Your task to perform on an android device: add a contact Image 0: 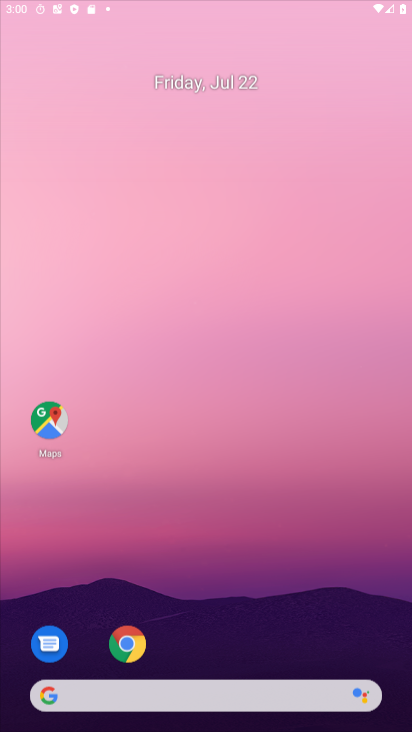
Step 0: press home button
Your task to perform on an android device: add a contact Image 1: 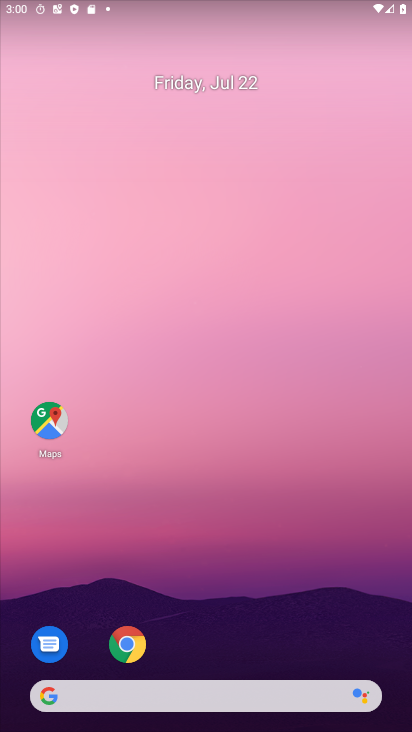
Step 1: drag from (275, 671) to (307, 64)
Your task to perform on an android device: add a contact Image 2: 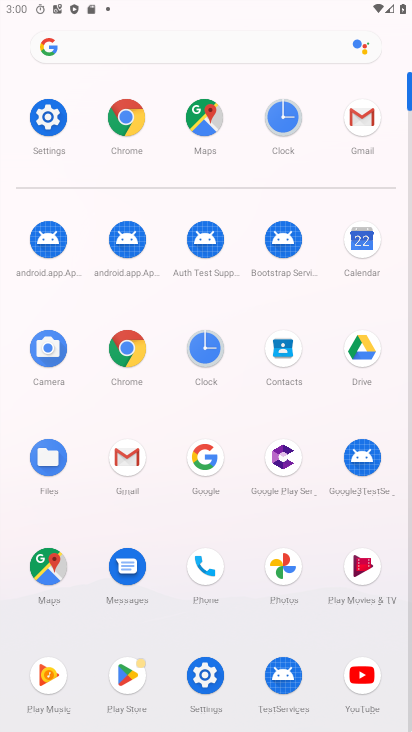
Step 2: click (288, 351)
Your task to perform on an android device: add a contact Image 3: 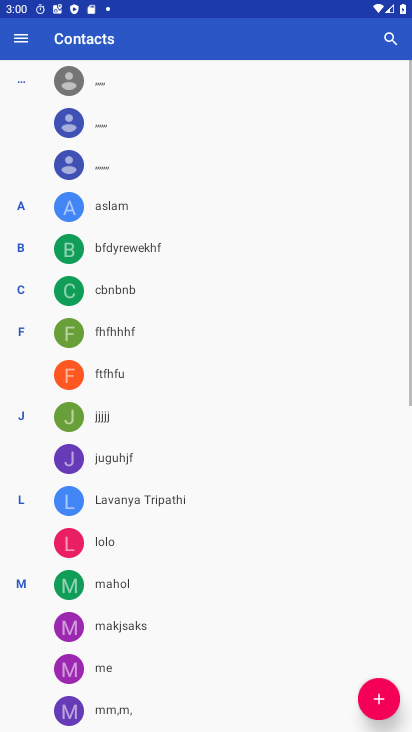
Step 3: click (373, 712)
Your task to perform on an android device: add a contact Image 4: 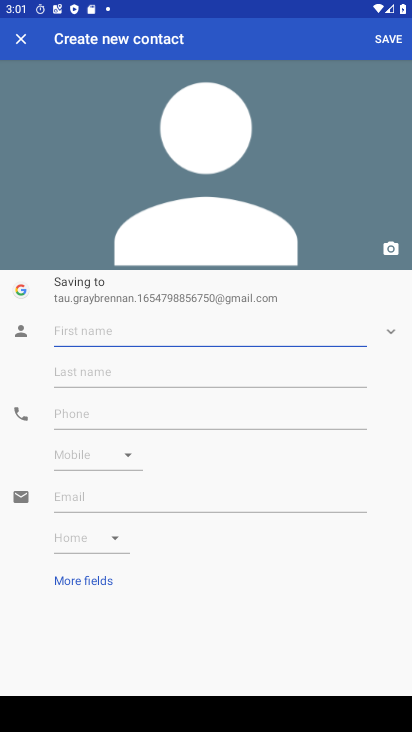
Step 4: type "nnmnmnm"
Your task to perform on an android device: add a contact Image 5: 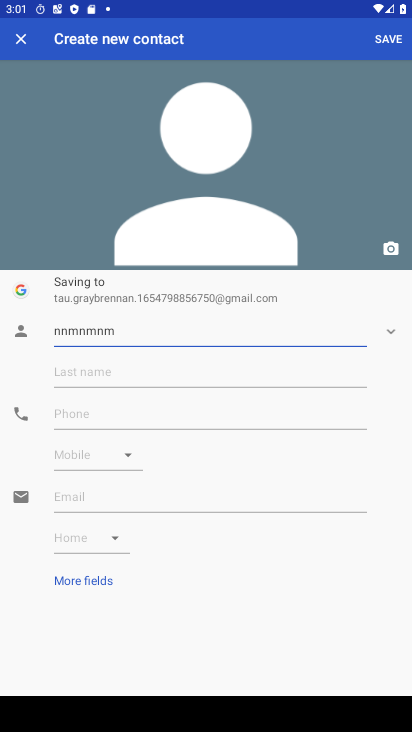
Step 5: click (293, 393)
Your task to perform on an android device: add a contact Image 6: 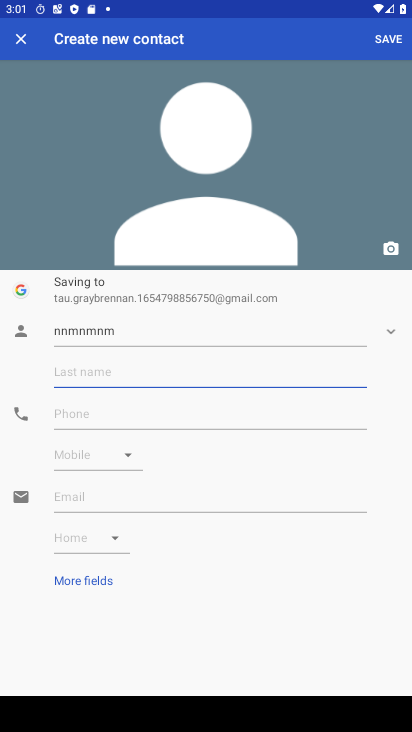
Step 6: click (251, 412)
Your task to perform on an android device: add a contact Image 7: 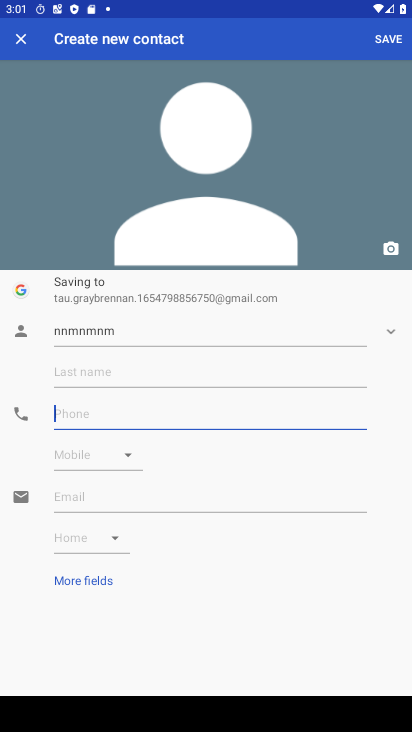
Step 7: type "898080"
Your task to perform on an android device: add a contact Image 8: 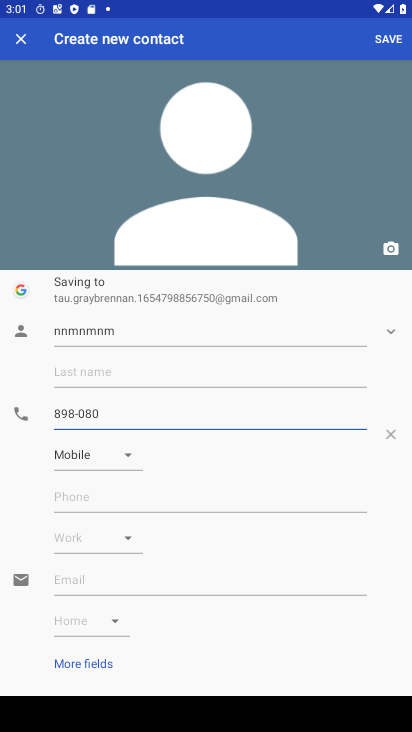
Step 8: click (388, 37)
Your task to perform on an android device: add a contact Image 9: 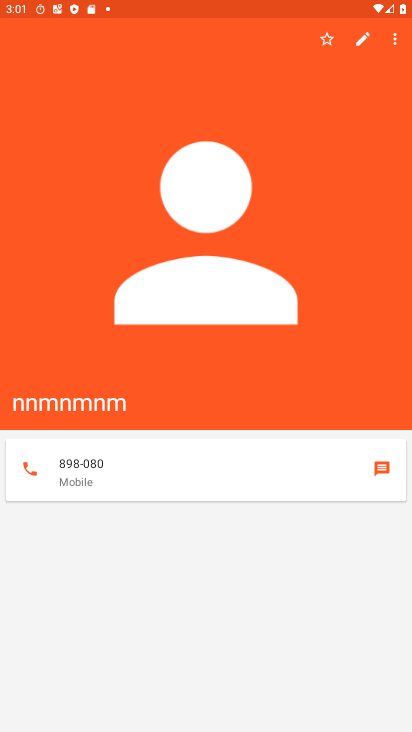
Step 9: task complete